Your task to perform on an android device: change text size in settings app Image 0: 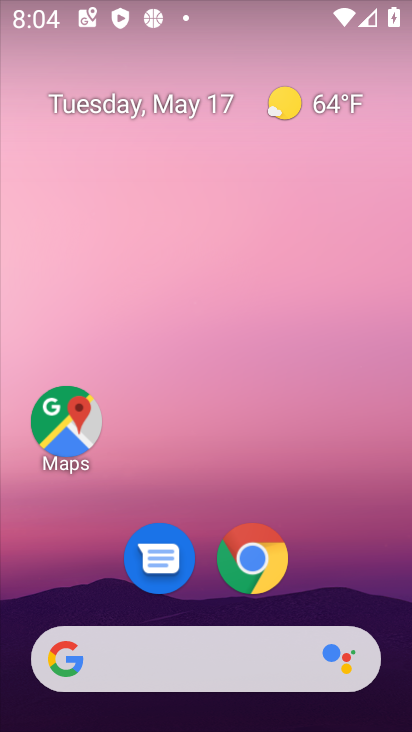
Step 0: drag from (215, 613) to (144, 70)
Your task to perform on an android device: change text size in settings app Image 1: 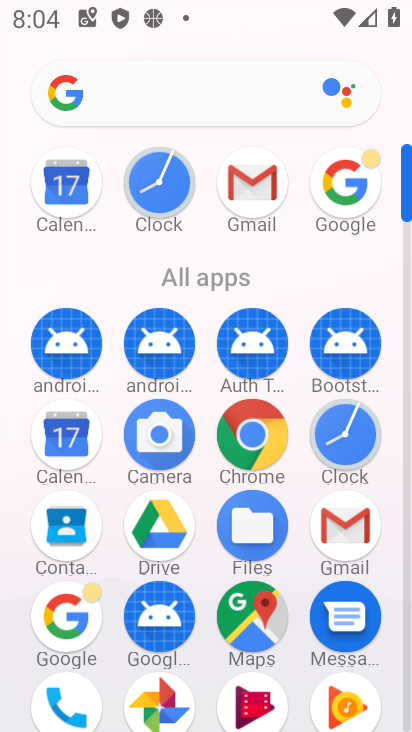
Step 1: drag from (108, 592) to (108, 194)
Your task to perform on an android device: change text size in settings app Image 2: 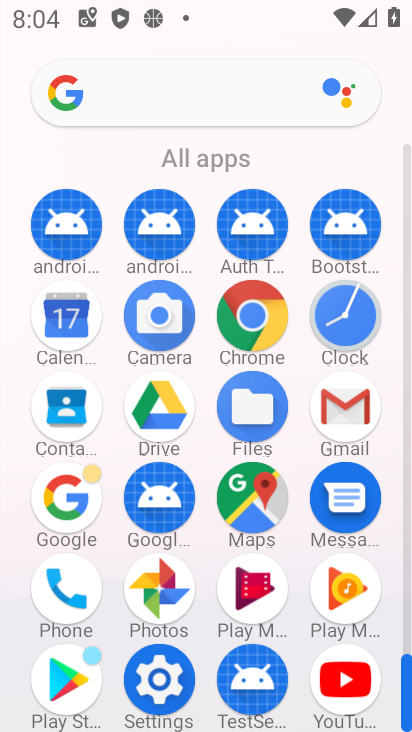
Step 2: click (160, 693)
Your task to perform on an android device: change text size in settings app Image 3: 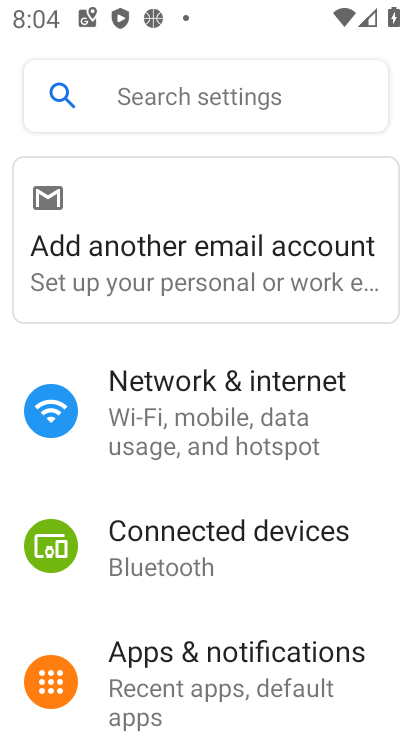
Step 3: drag from (289, 591) to (219, 143)
Your task to perform on an android device: change text size in settings app Image 4: 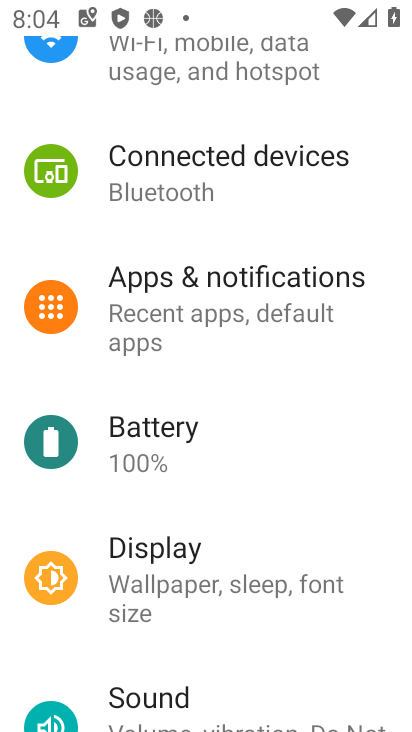
Step 4: click (201, 564)
Your task to perform on an android device: change text size in settings app Image 5: 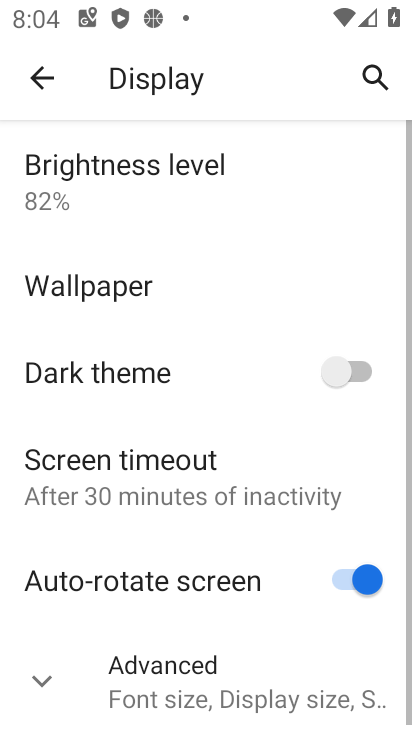
Step 5: click (230, 666)
Your task to perform on an android device: change text size in settings app Image 6: 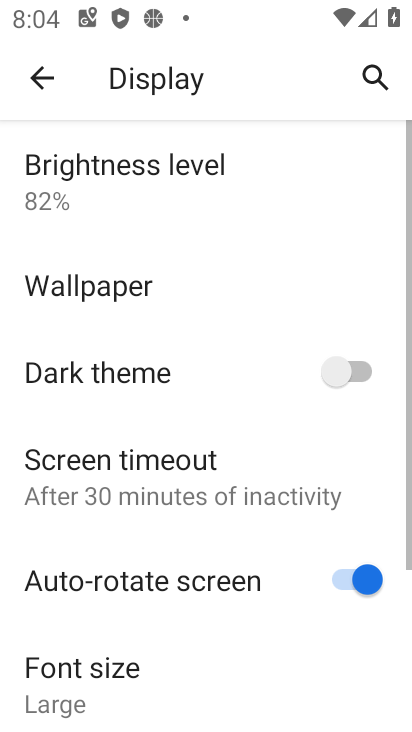
Step 6: drag from (162, 593) to (131, 380)
Your task to perform on an android device: change text size in settings app Image 7: 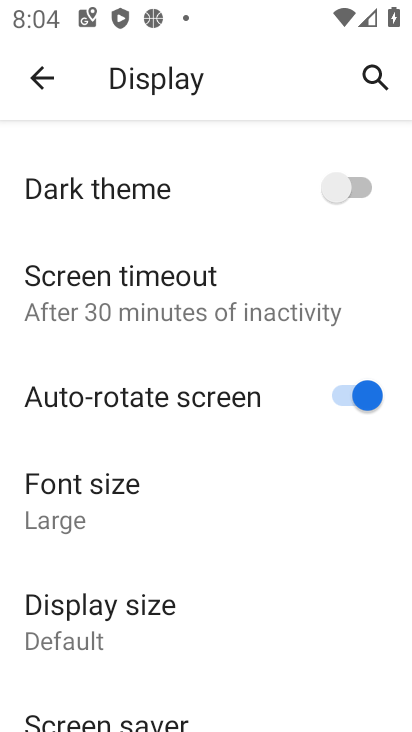
Step 7: click (158, 518)
Your task to perform on an android device: change text size in settings app Image 8: 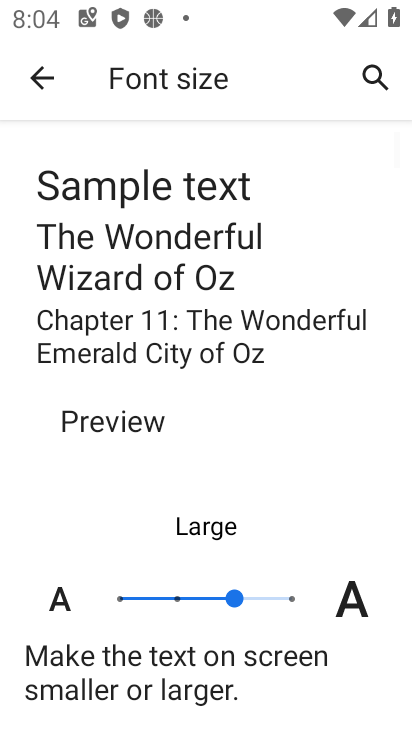
Step 8: click (180, 595)
Your task to perform on an android device: change text size in settings app Image 9: 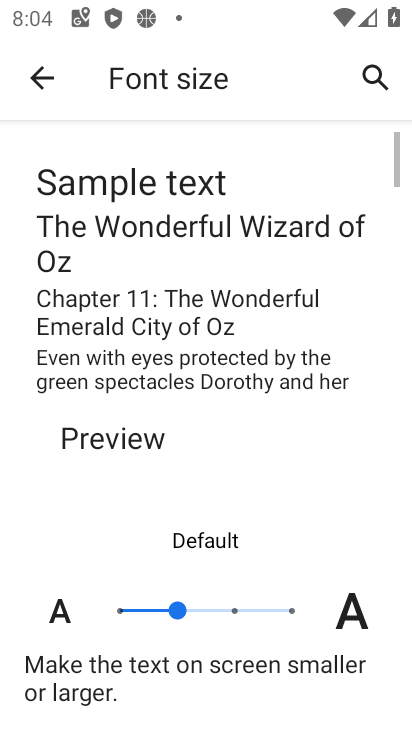
Step 9: task complete